Your task to perform on an android device: turn vacation reply on in the gmail app Image 0: 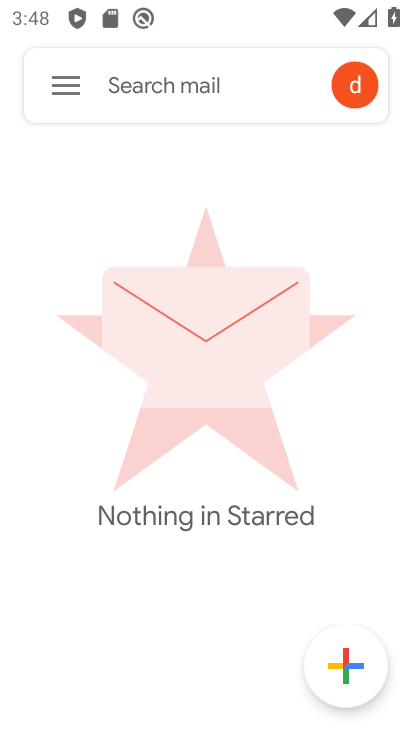
Step 0: press home button
Your task to perform on an android device: turn vacation reply on in the gmail app Image 1: 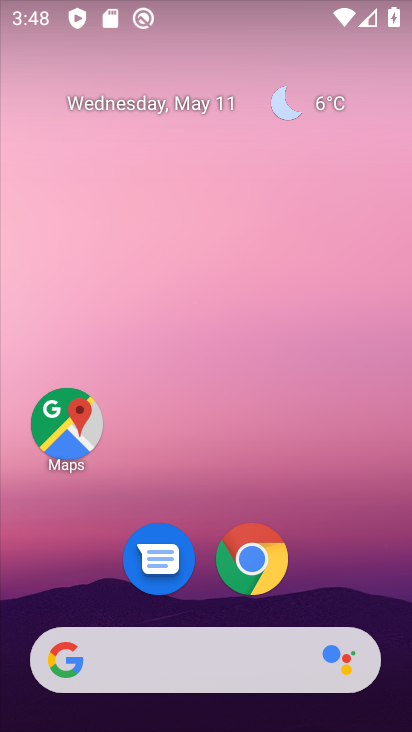
Step 1: drag from (357, 547) to (278, 7)
Your task to perform on an android device: turn vacation reply on in the gmail app Image 2: 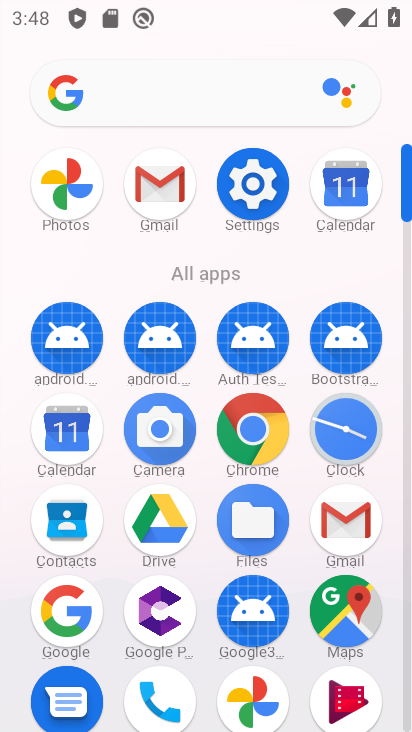
Step 2: click (182, 194)
Your task to perform on an android device: turn vacation reply on in the gmail app Image 3: 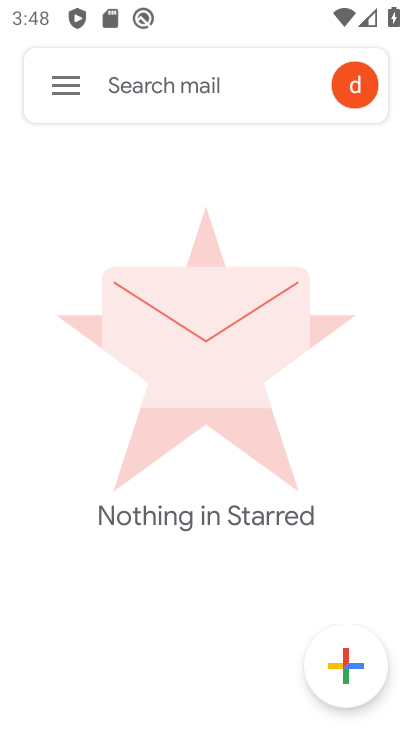
Step 3: click (61, 78)
Your task to perform on an android device: turn vacation reply on in the gmail app Image 4: 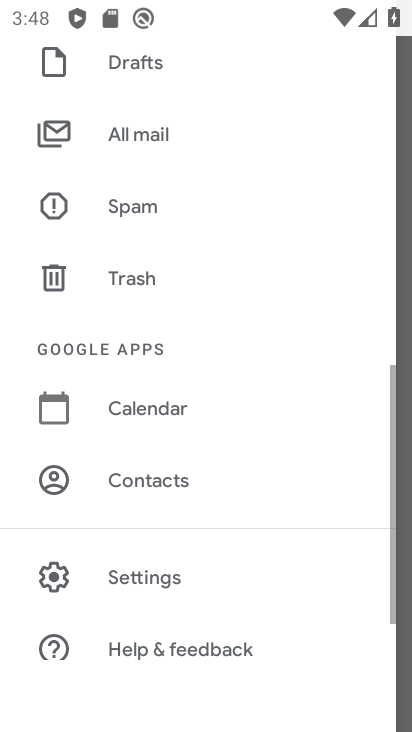
Step 4: drag from (137, 541) to (204, 166)
Your task to perform on an android device: turn vacation reply on in the gmail app Image 5: 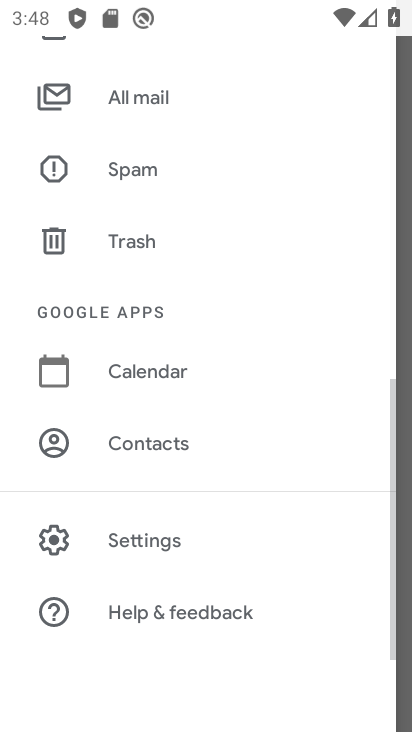
Step 5: click (150, 531)
Your task to perform on an android device: turn vacation reply on in the gmail app Image 6: 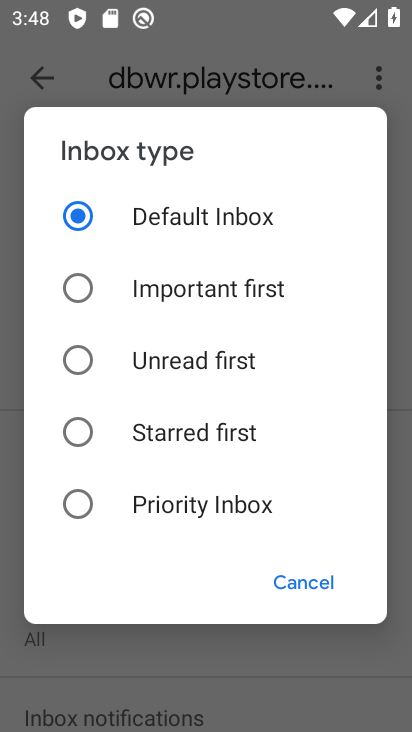
Step 6: click (299, 567)
Your task to perform on an android device: turn vacation reply on in the gmail app Image 7: 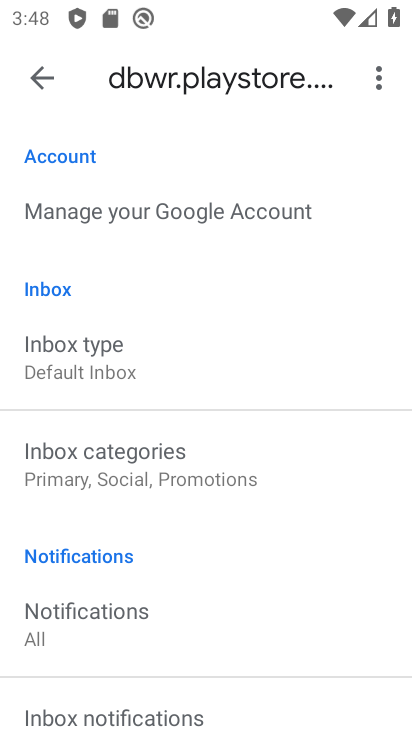
Step 7: drag from (257, 583) to (234, 209)
Your task to perform on an android device: turn vacation reply on in the gmail app Image 8: 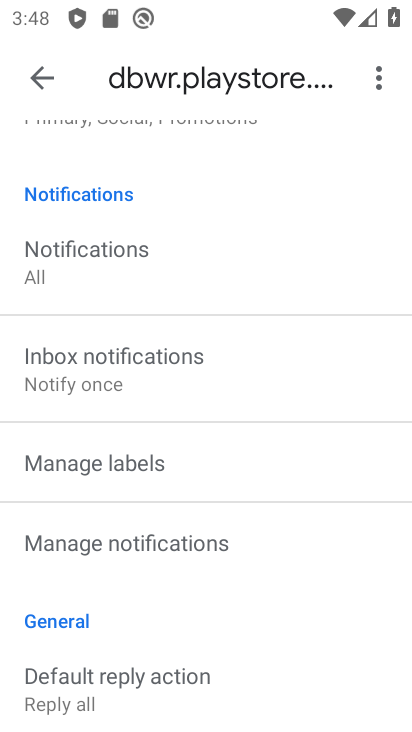
Step 8: drag from (178, 447) to (156, 205)
Your task to perform on an android device: turn vacation reply on in the gmail app Image 9: 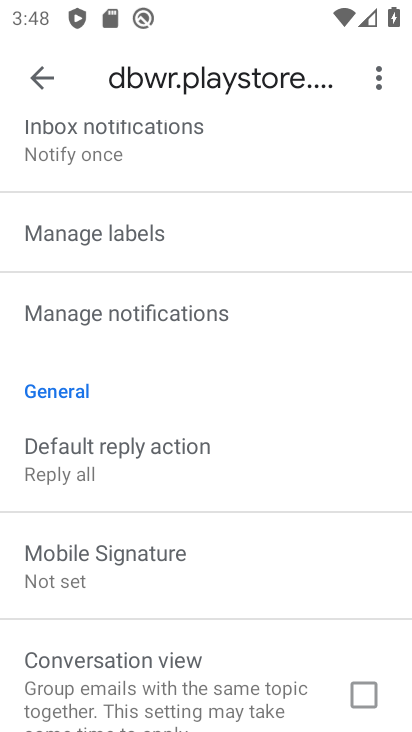
Step 9: drag from (149, 656) to (234, 196)
Your task to perform on an android device: turn vacation reply on in the gmail app Image 10: 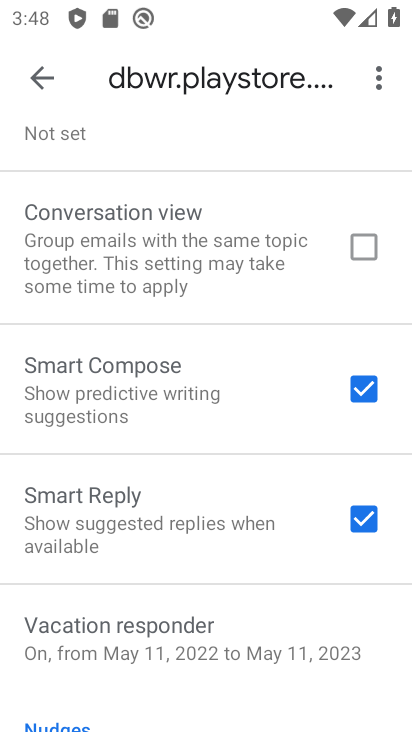
Step 10: drag from (172, 580) to (215, 286)
Your task to perform on an android device: turn vacation reply on in the gmail app Image 11: 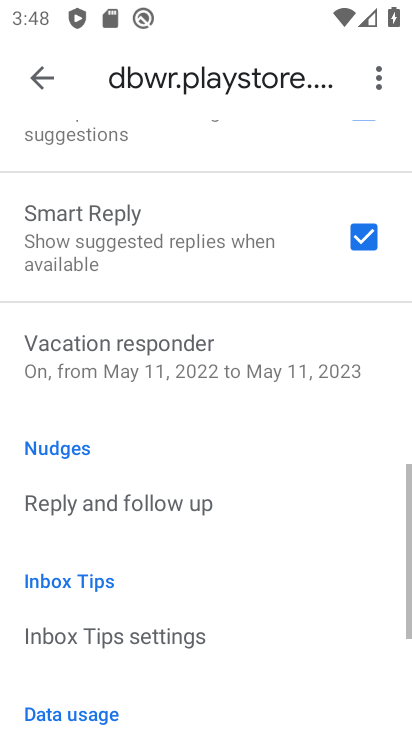
Step 11: click (144, 367)
Your task to perform on an android device: turn vacation reply on in the gmail app Image 12: 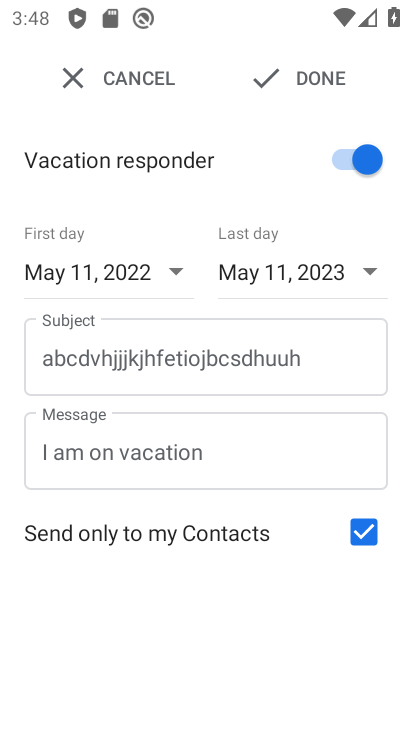
Step 12: task complete